Your task to perform on an android device: toggle airplane mode Image 0: 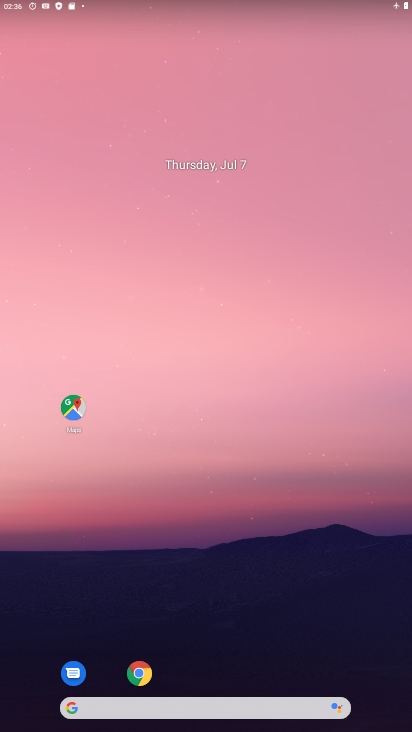
Step 0: drag from (240, 435) to (250, 194)
Your task to perform on an android device: toggle airplane mode Image 1: 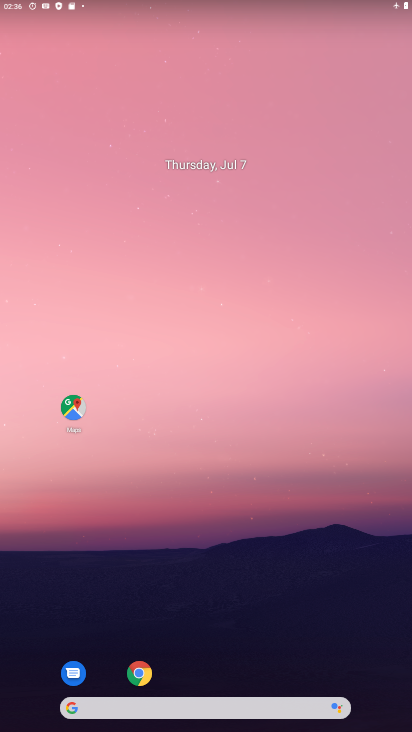
Step 1: drag from (222, 671) to (286, 221)
Your task to perform on an android device: toggle airplane mode Image 2: 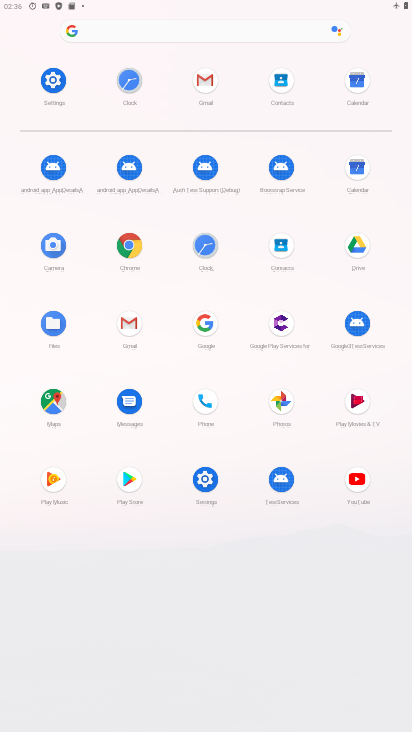
Step 2: click (56, 85)
Your task to perform on an android device: toggle airplane mode Image 3: 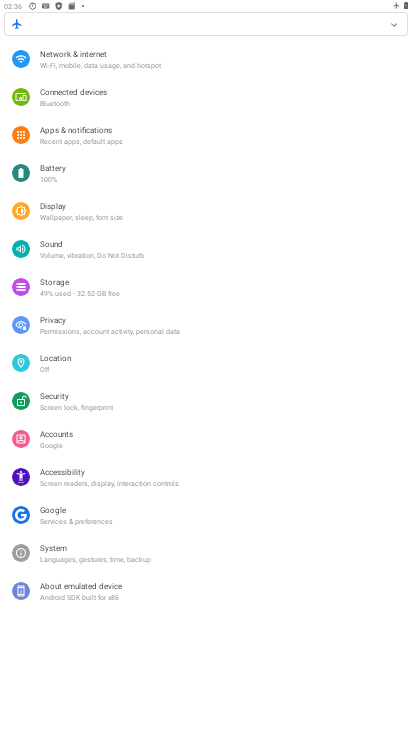
Step 3: click (152, 61)
Your task to perform on an android device: toggle airplane mode Image 4: 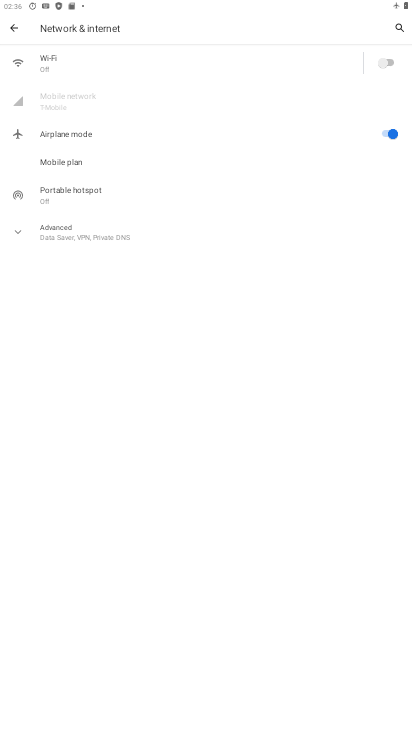
Step 4: click (383, 134)
Your task to perform on an android device: toggle airplane mode Image 5: 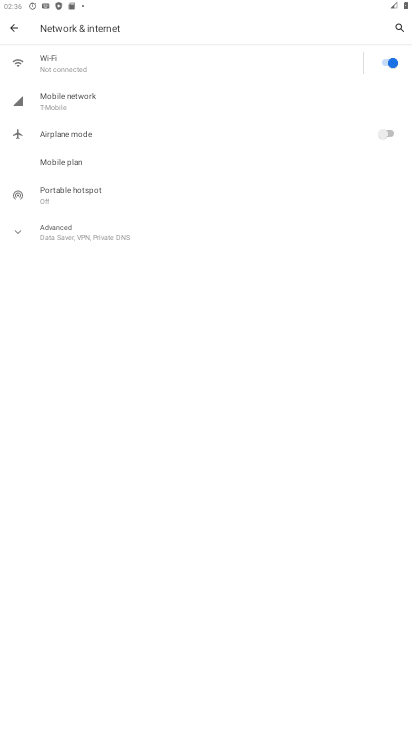
Step 5: task complete